Your task to perform on an android device: Go to settings Image 0: 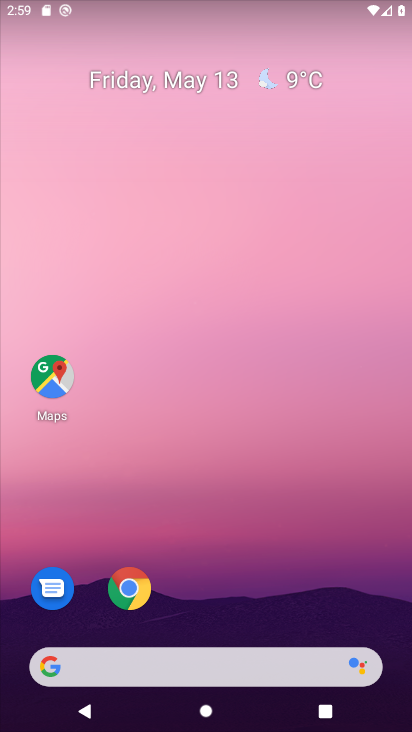
Step 0: drag from (319, 527) to (232, 102)
Your task to perform on an android device: Go to settings Image 1: 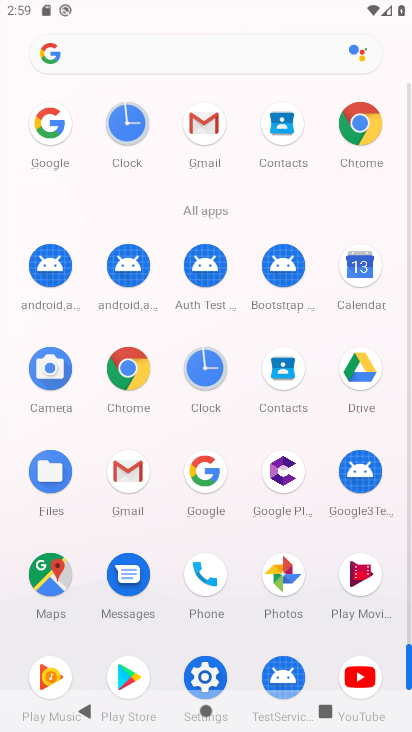
Step 1: drag from (237, 217) to (205, 141)
Your task to perform on an android device: Go to settings Image 2: 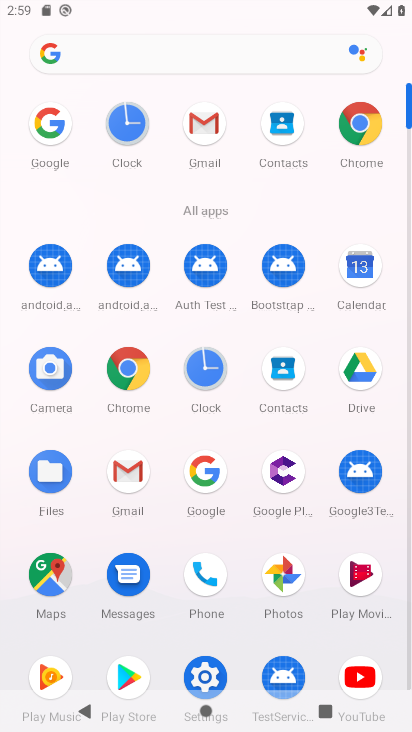
Step 2: click (211, 665)
Your task to perform on an android device: Go to settings Image 3: 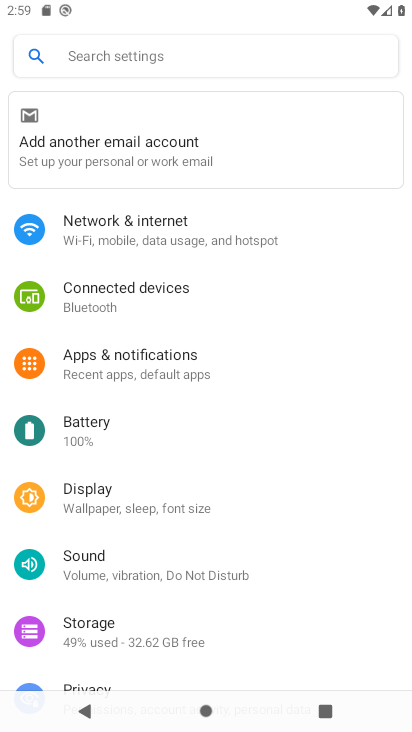
Step 3: task complete